Your task to perform on an android device: Turn on the flashlight Image 0: 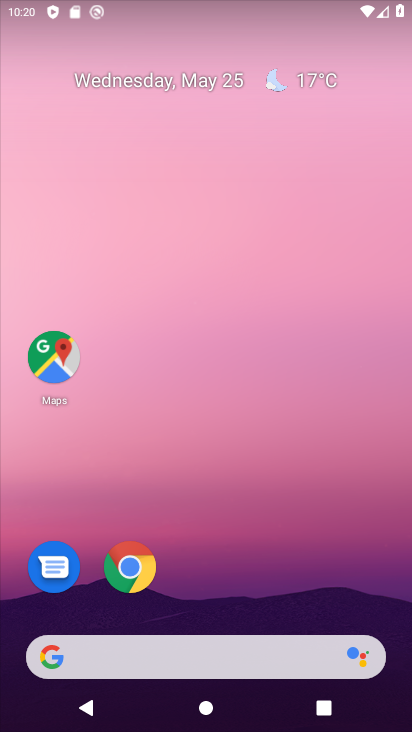
Step 0: drag from (343, 608) to (187, 0)
Your task to perform on an android device: Turn on the flashlight Image 1: 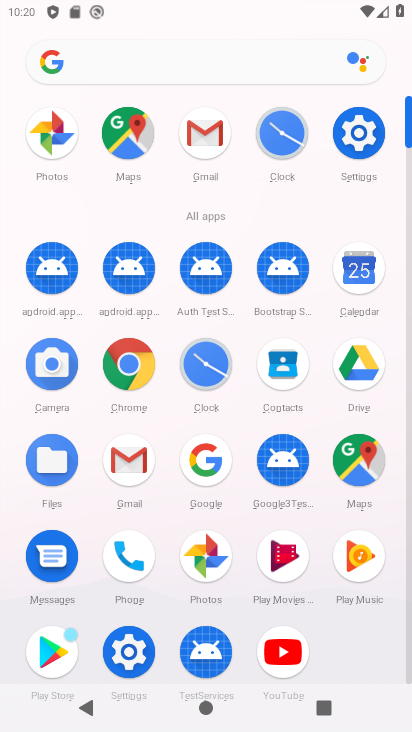
Step 1: click (365, 130)
Your task to perform on an android device: Turn on the flashlight Image 2: 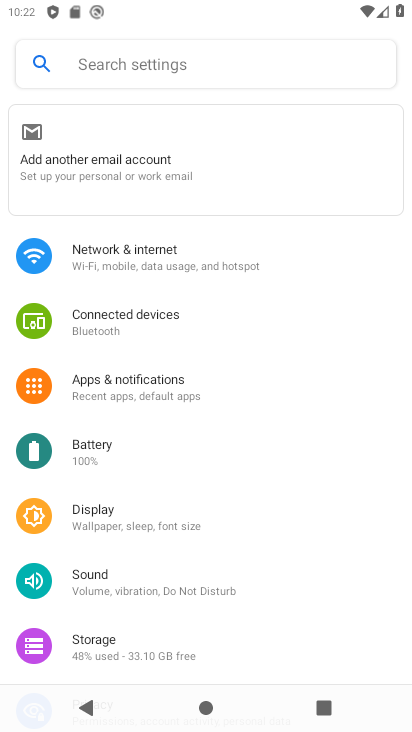
Step 2: task complete